Your task to perform on an android device: Search for Mexican restaurants on Maps Image 0: 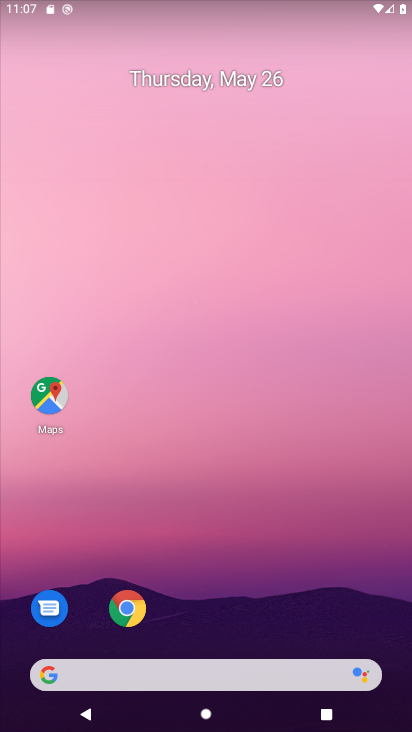
Step 0: click (52, 384)
Your task to perform on an android device: Search for Mexican restaurants on Maps Image 1: 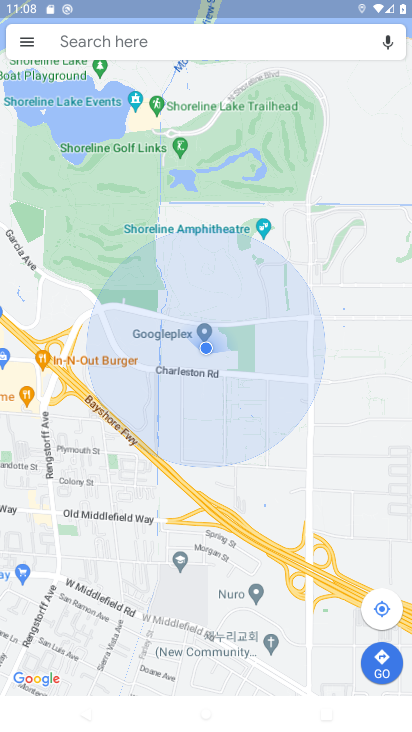
Step 1: click (81, 42)
Your task to perform on an android device: Search for Mexican restaurants on Maps Image 2: 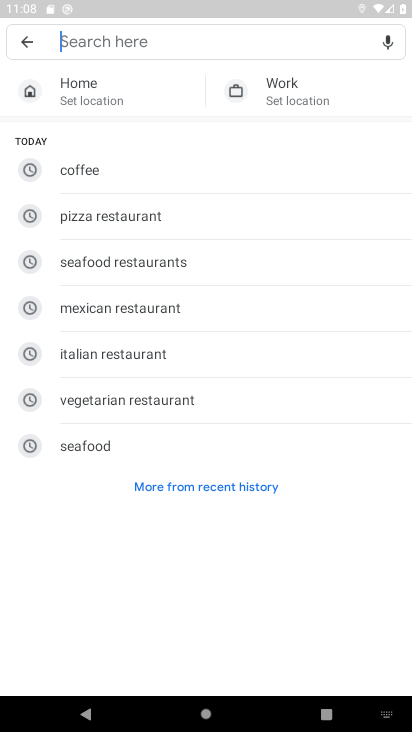
Step 2: type "Mexican restaurants"
Your task to perform on an android device: Search for Mexican restaurants on Maps Image 3: 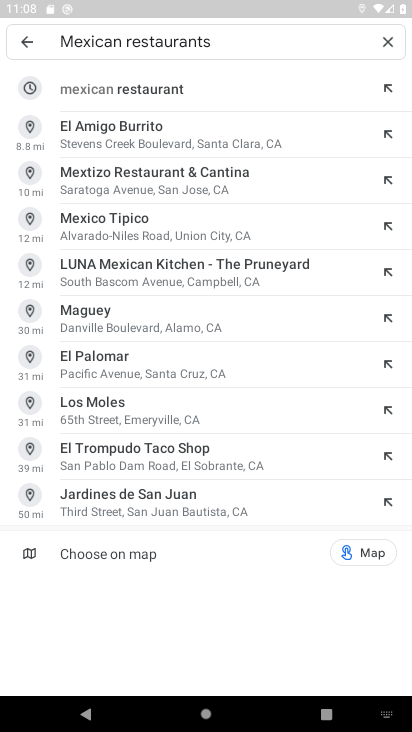
Step 3: click (130, 92)
Your task to perform on an android device: Search for Mexican restaurants on Maps Image 4: 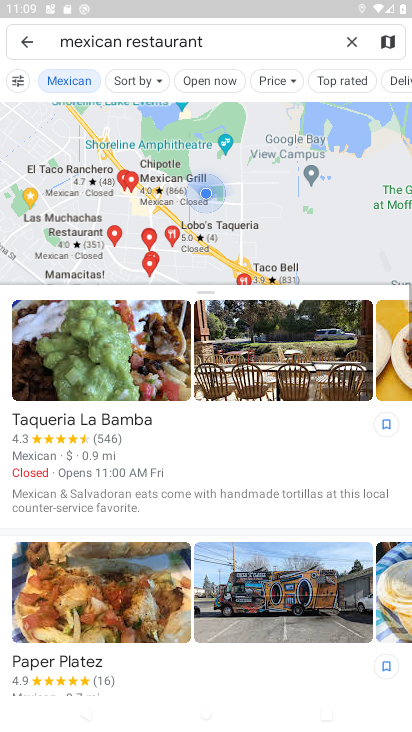
Step 4: task complete